Your task to perform on an android device: choose inbox layout in the gmail app Image 0: 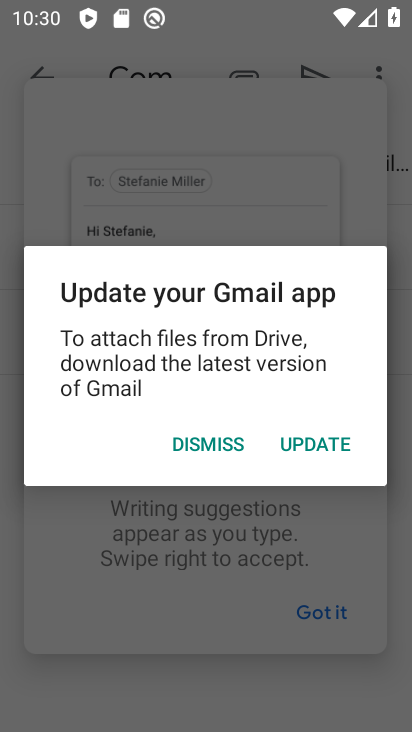
Step 0: press home button
Your task to perform on an android device: choose inbox layout in the gmail app Image 1: 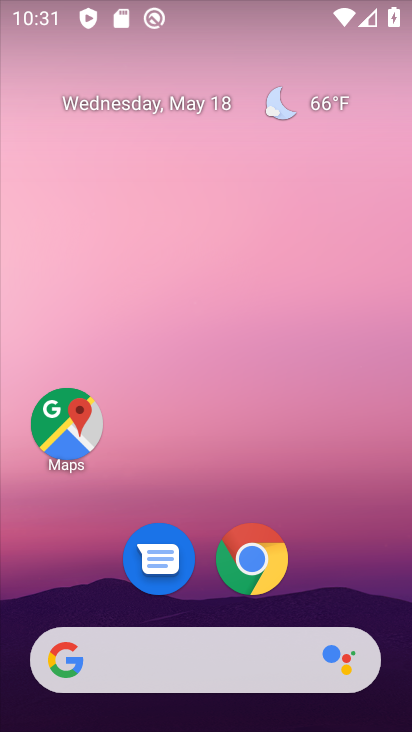
Step 1: drag from (215, 604) to (256, 115)
Your task to perform on an android device: choose inbox layout in the gmail app Image 2: 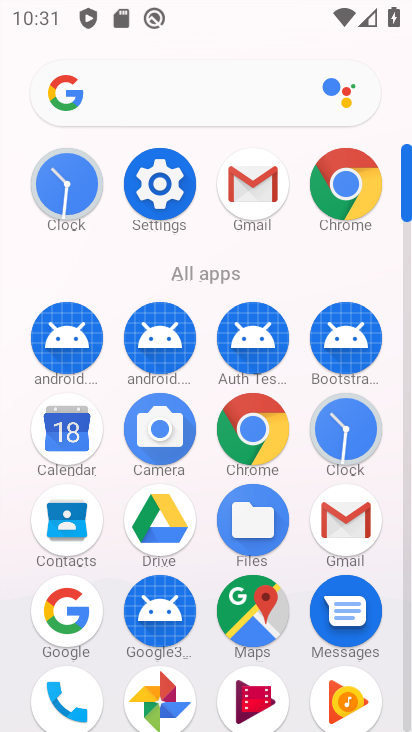
Step 2: click (347, 525)
Your task to perform on an android device: choose inbox layout in the gmail app Image 3: 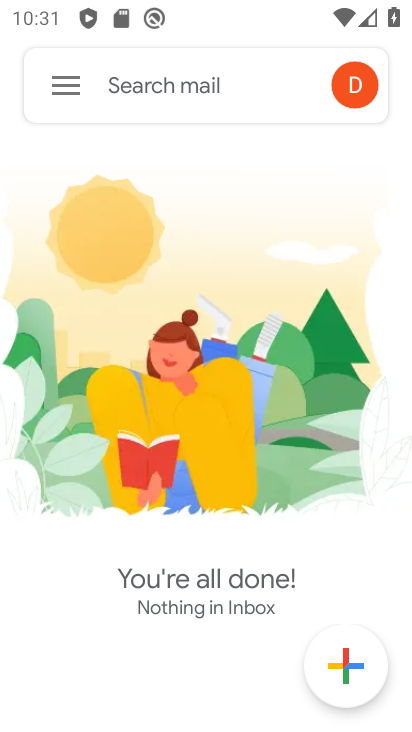
Step 3: click (62, 83)
Your task to perform on an android device: choose inbox layout in the gmail app Image 4: 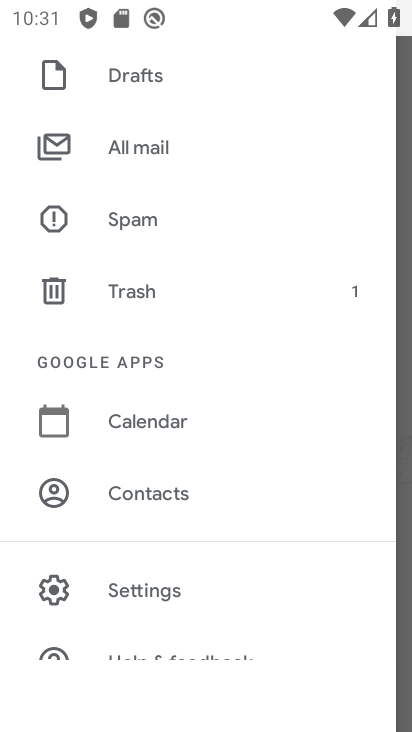
Step 4: click (124, 599)
Your task to perform on an android device: choose inbox layout in the gmail app Image 5: 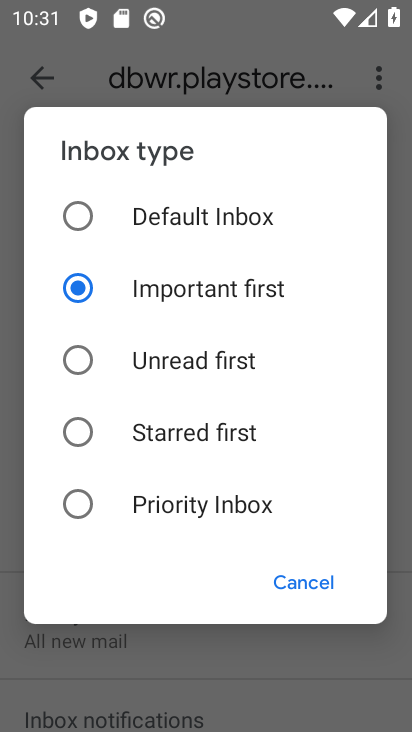
Step 5: click (166, 233)
Your task to perform on an android device: choose inbox layout in the gmail app Image 6: 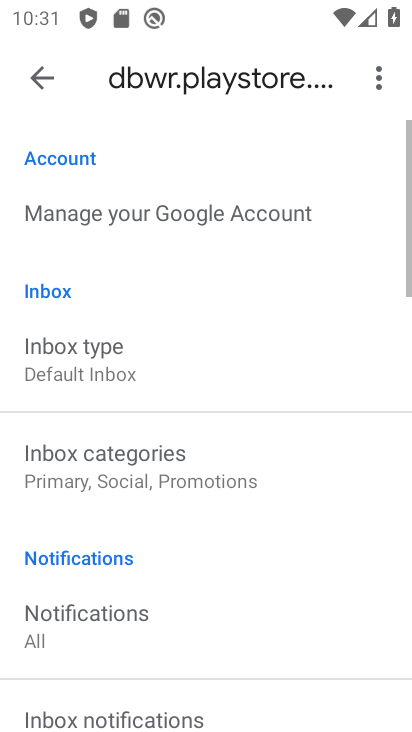
Step 6: task complete